Your task to perform on an android device: change keyboard looks Image 0: 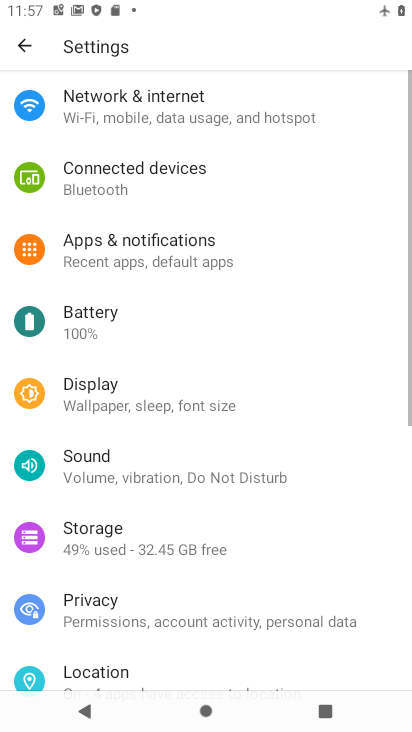
Step 0: press home button
Your task to perform on an android device: change keyboard looks Image 1: 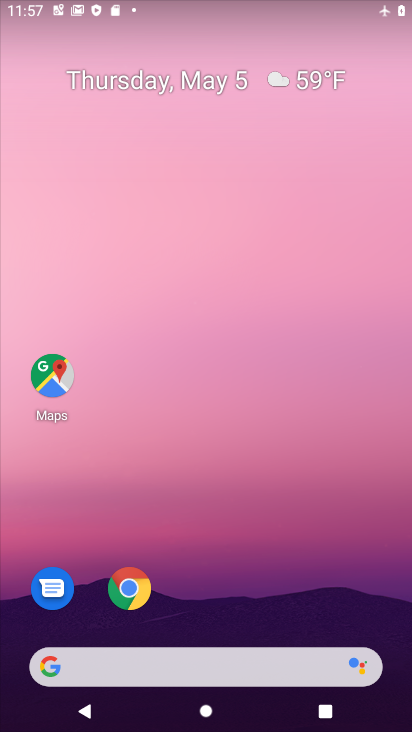
Step 1: drag from (187, 670) to (303, 125)
Your task to perform on an android device: change keyboard looks Image 2: 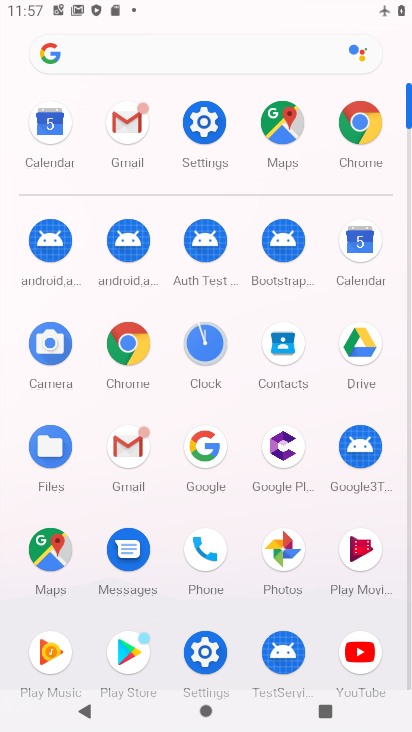
Step 2: click (210, 127)
Your task to perform on an android device: change keyboard looks Image 3: 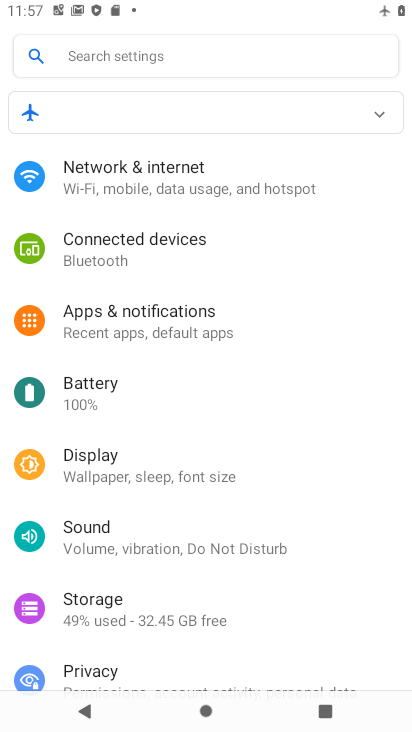
Step 3: drag from (170, 658) to (298, 292)
Your task to perform on an android device: change keyboard looks Image 4: 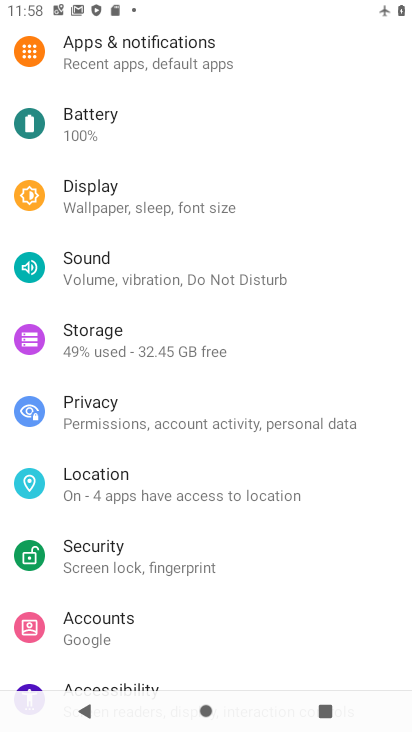
Step 4: drag from (196, 619) to (354, 242)
Your task to perform on an android device: change keyboard looks Image 5: 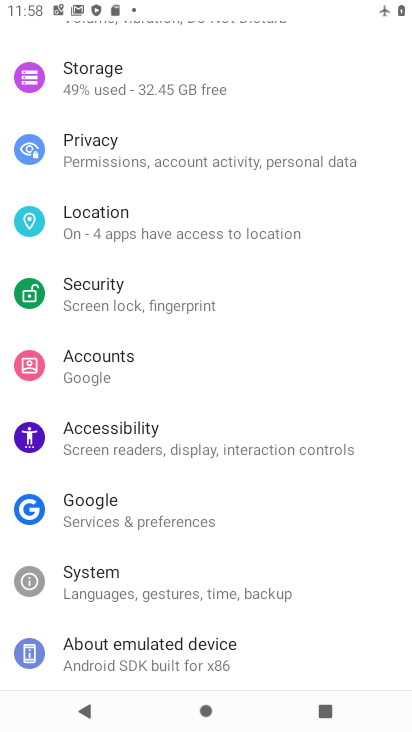
Step 5: click (155, 589)
Your task to perform on an android device: change keyboard looks Image 6: 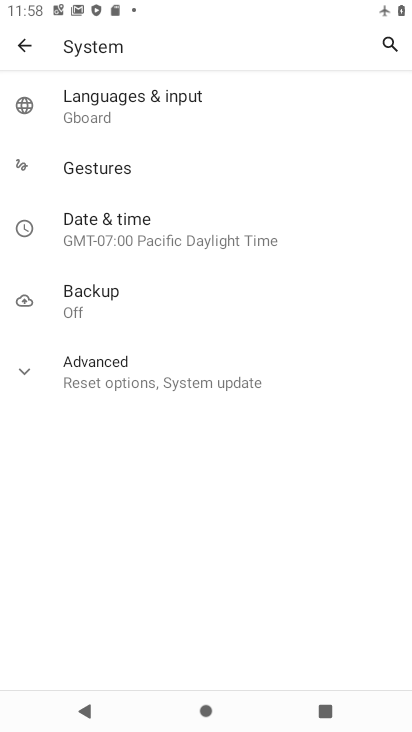
Step 6: click (127, 104)
Your task to perform on an android device: change keyboard looks Image 7: 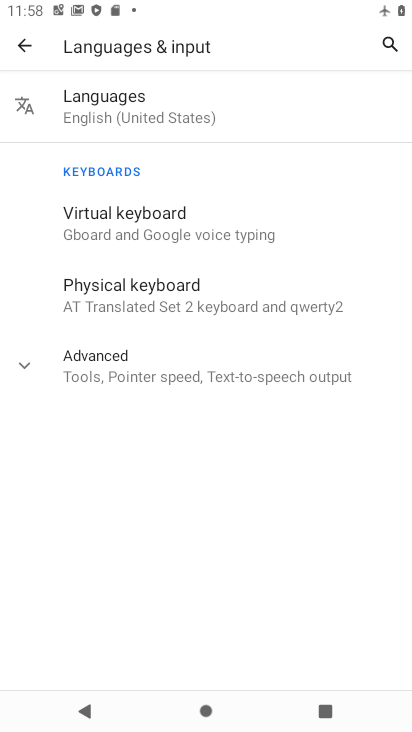
Step 7: click (132, 223)
Your task to perform on an android device: change keyboard looks Image 8: 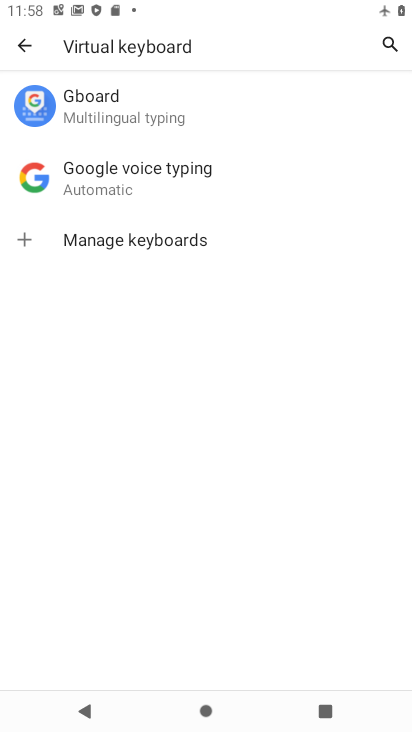
Step 8: click (81, 97)
Your task to perform on an android device: change keyboard looks Image 9: 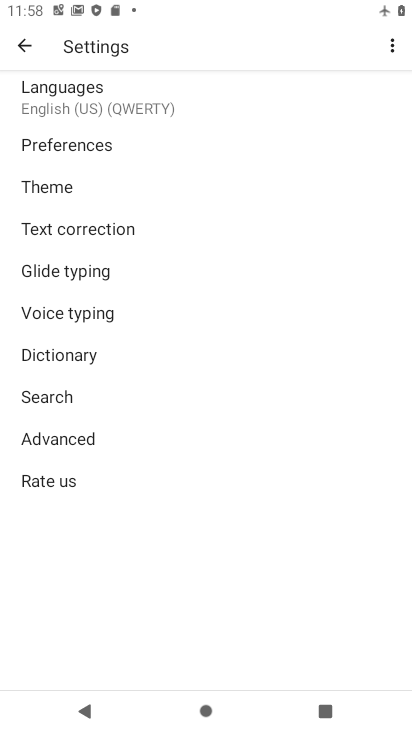
Step 9: click (52, 188)
Your task to perform on an android device: change keyboard looks Image 10: 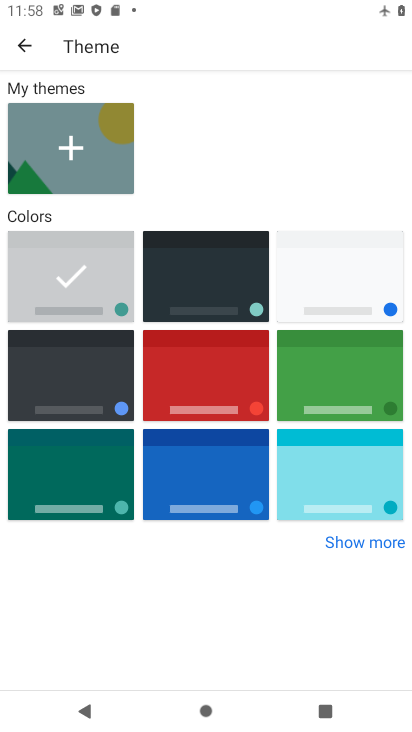
Step 10: click (339, 464)
Your task to perform on an android device: change keyboard looks Image 11: 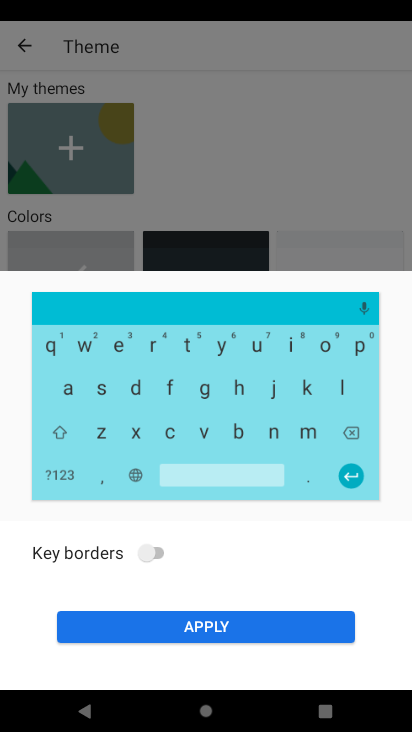
Step 11: click (203, 622)
Your task to perform on an android device: change keyboard looks Image 12: 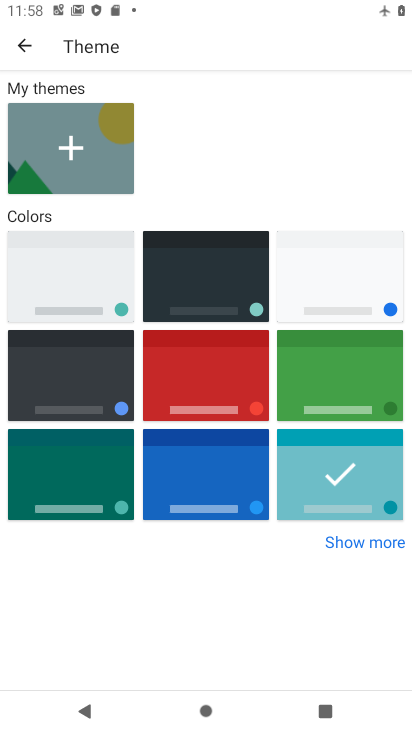
Step 12: task complete